Your task to perform on an android device: open app "eBay: The shopping marketplace" Image 0: 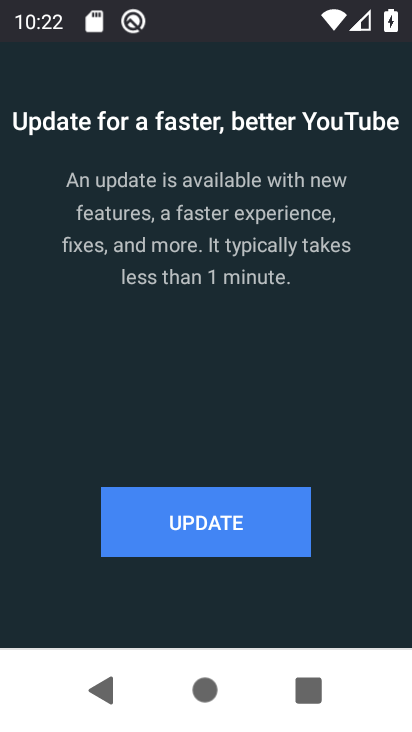
Step 0: press home button
Your task to perform on an android device: open app "eBay: The shopping marketplace" Image 1: 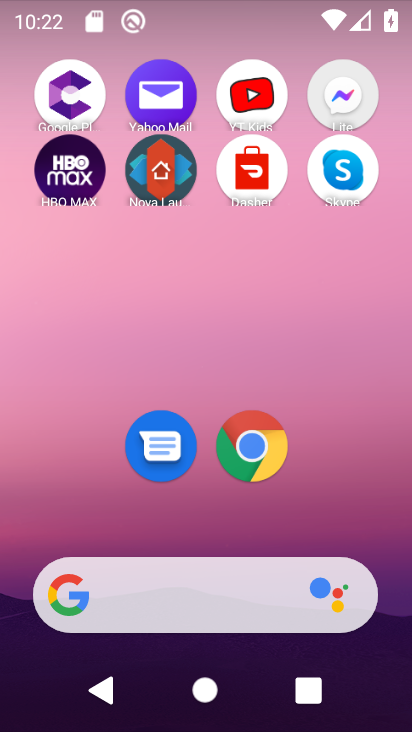
Step 1: drag from (212, 522) to (231, 94)
Your task to perform on an android device: open app "eBay: The shopping marketplace" Image 2: 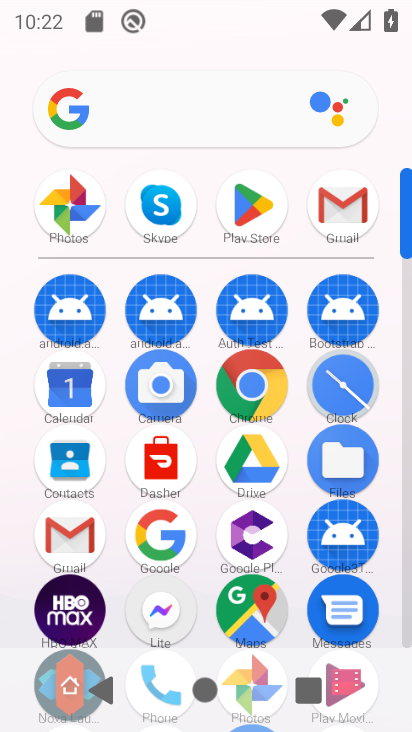
Step 2: click (244, 205)
Your task to perform on an android device: open app "eBay: The shopping marketplace" Image 3: 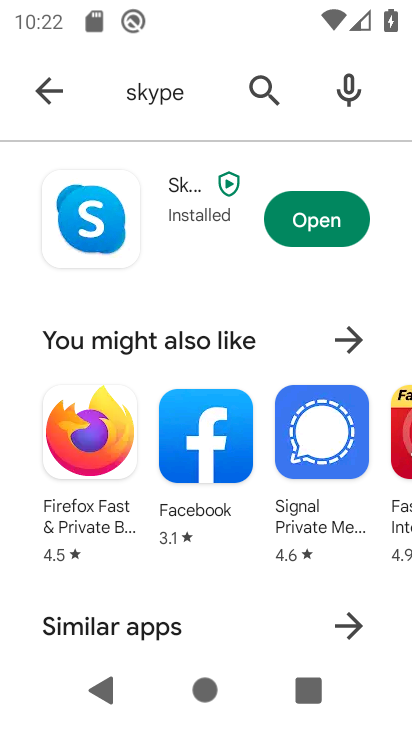
Step 3: click (268, 96)
Your task to perform on an android device: open app "eBay: The shopping marketplace" Image 4: 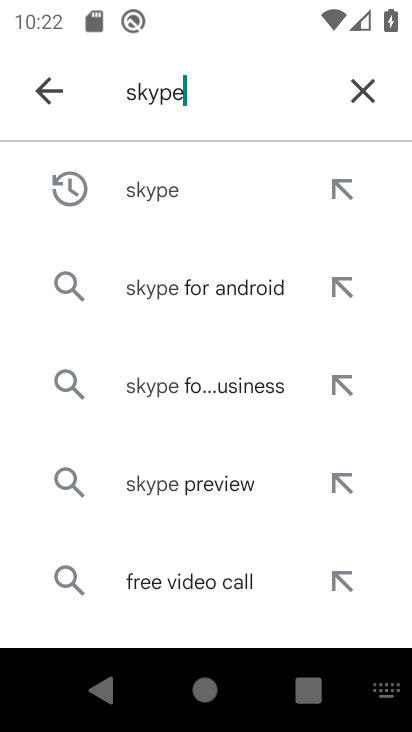
Step 4: click (358, 94)
Your task to perform on an android device: open app "eBay: The shopping marketplace" Image 5: 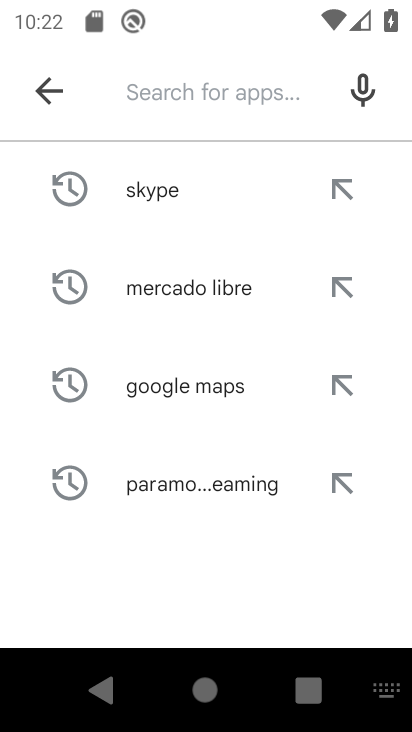
Step 5: type "eBay: The shopping marketplace"
Your task to perform on an android device: open app "eBay: The shopping marketplace" Image 6: 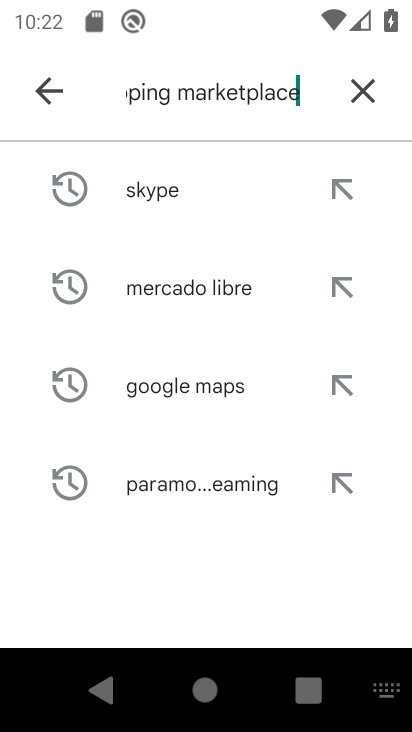
Step 6: type ""
Your task to perform on an android device: open app "eBay: The shopping marketplace" Image 7: 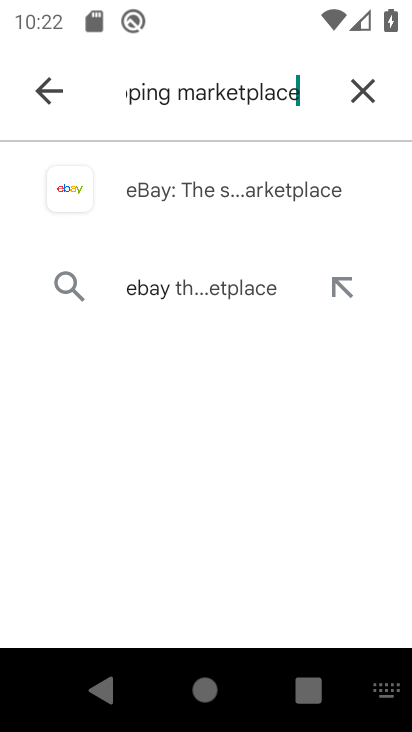
Step 7: click (289, 198)
Your task to perform on an android device: open app "eBay: The shopping marketplace" Image 8: 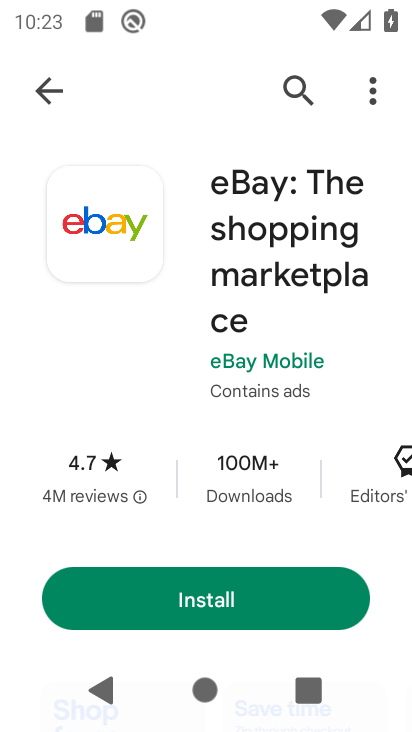
Step 8: task complete